Your task to perform on an android device: Open sound settings Image 0: 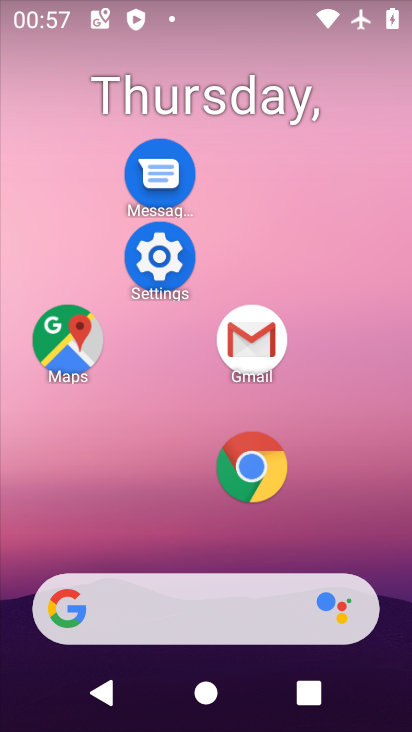
Step 0: click (161, 273)
Your task to perform on an android device: Open sound settings Image 1: 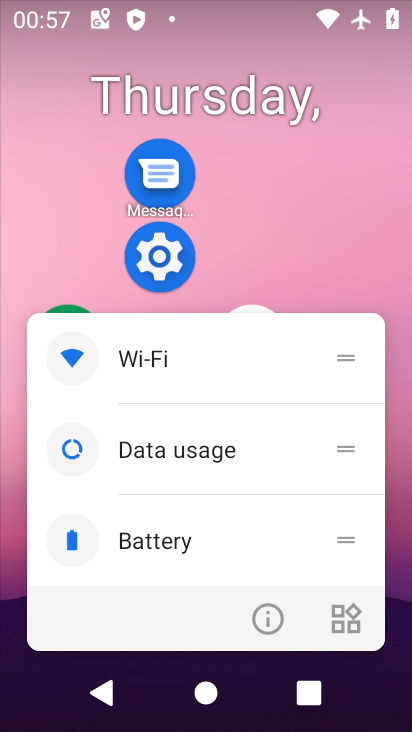
Step 1: click (259, 628)
Your task to perform on an android device: Open sound settings Image 2: 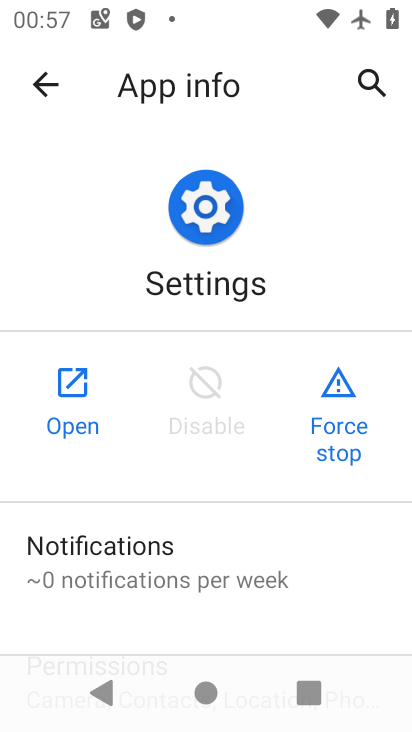
Step 2: click (76, 422)
Your task to perform on an android device: Open sound settings Image 3: 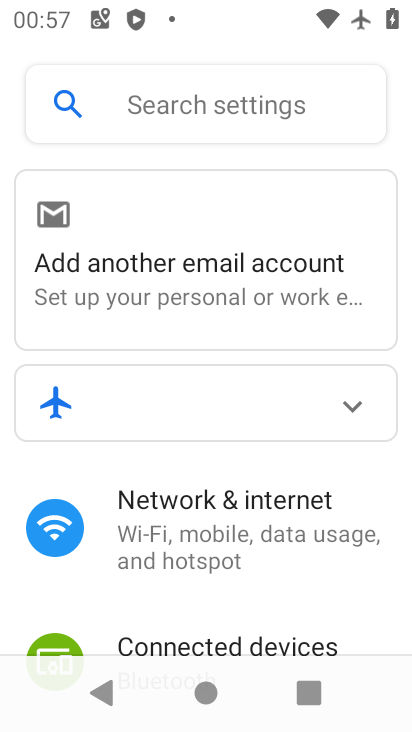
Step 3: drag from (152, 581) to (233, 29)
Your task to perform on an android device: Open sound settings Image 4: 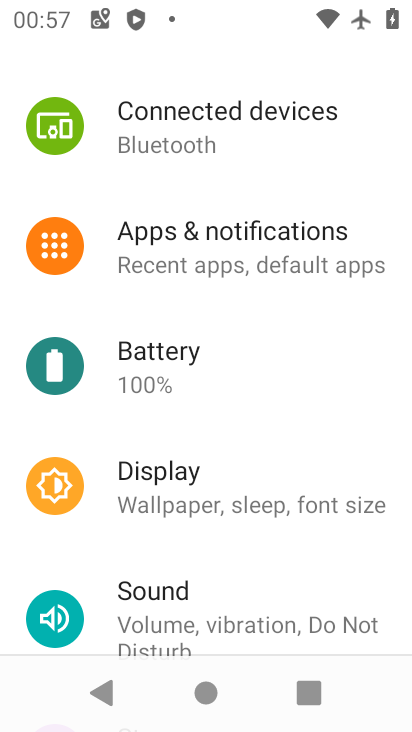
Step 4: drag from (221, 549) to (269, 150)
Your task to perform on an android device: Open sound settings Image 5: 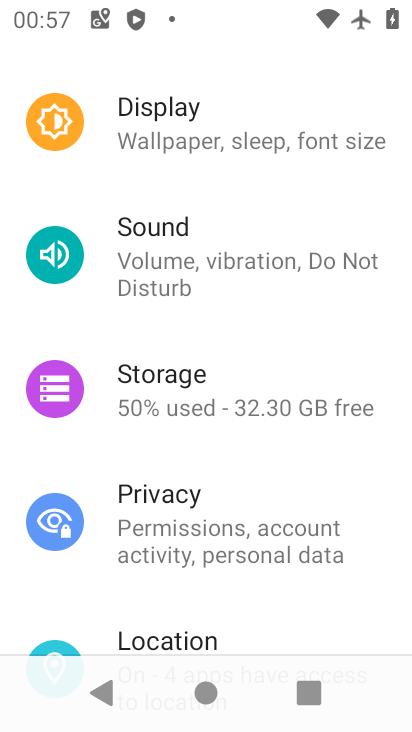
Step 5: click (168, 258)
Your task to perform on an android device: Open sound settings Image 6: 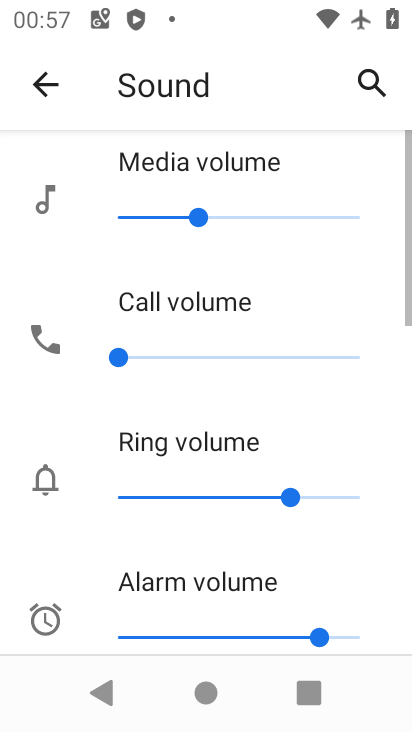
Step 6: task complete